Your task to perform on an android device: toggle pop-ups in chrome Image 0: 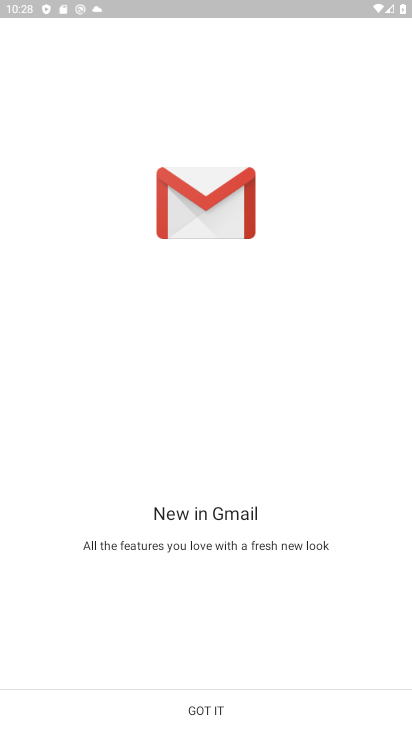
Step 0: press home button
Your task to perform on an android device: toggle pop-ups in chrome Image 1: 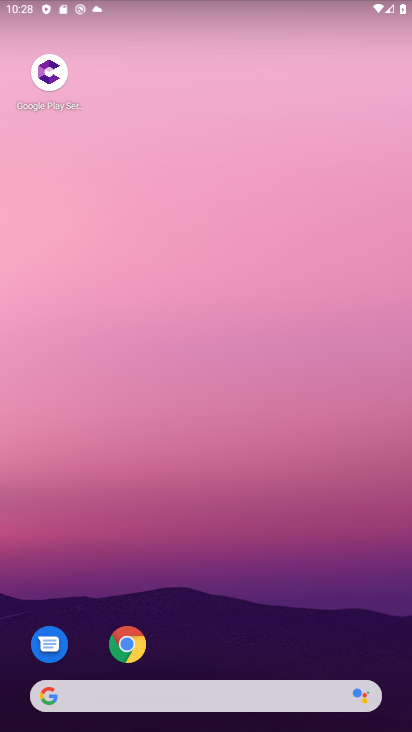
Step 1: click (128, 642)
Your task to perform on an android device: toggle pop-ups in chrome Image 2: 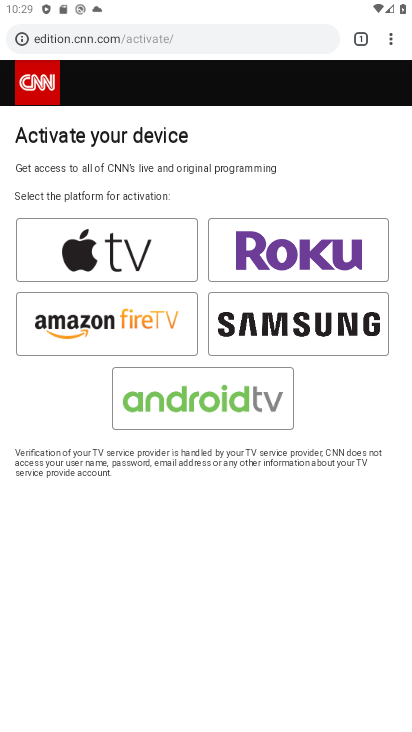
Step 2: click (388, 36)
Your task to perform on an android device: toggle pop-ups in chrome Image 3: 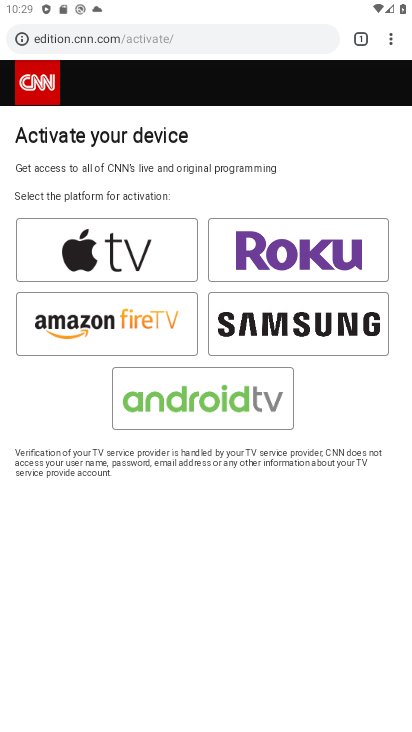
Step 3: click (389, 41)
Your task to perform on an android device: toggle pop-ups in chrome Image 4: 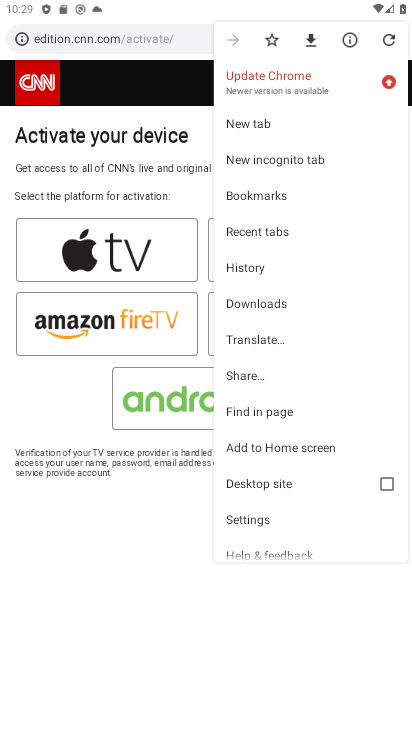
Step 4: click (273, 514)
Your task to perform on an android device: toggle pop-ups in chrome Image 5: 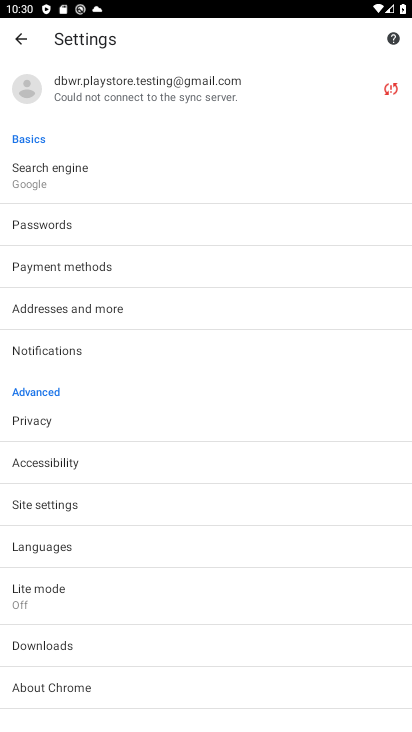
Step 5: click (51, 510)
Your task to perform on an android device: toggle pop-ups in chrome Image 6: 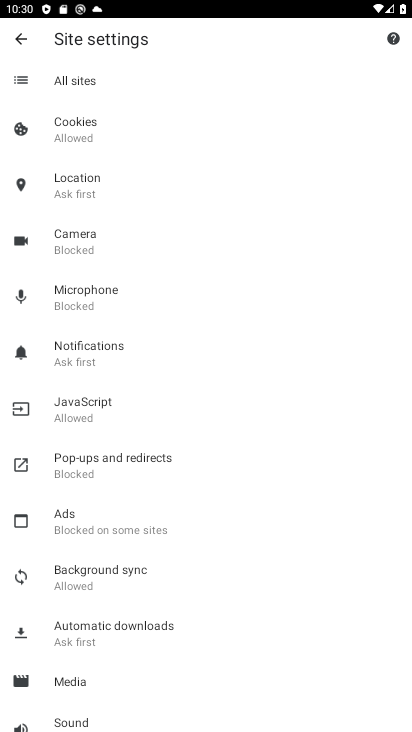
Step 6: click (114, 460)
Your task to perform on an android device: toggle pop-ups in chrome Image 7: 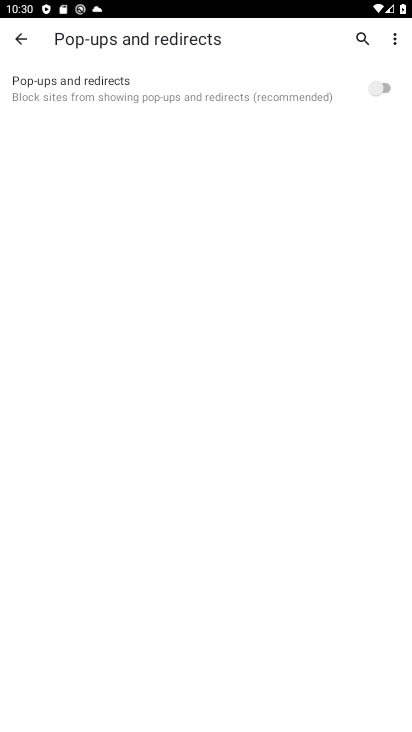
Step 7: click (390, 81)
Your task to perform on an android device: toggle pop-ups in chrome Image 8: 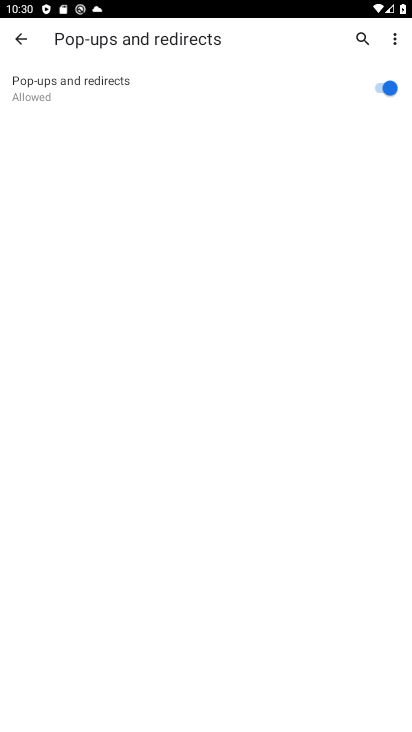
Step 8: task complete